Your task to perform on an android device: find snoozed emails in the gmail app Image 0: 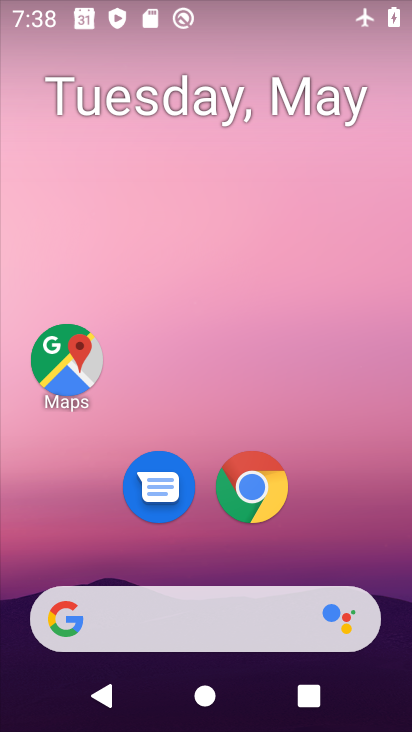
Step 0: drag from (385, 572) to (378, 184)
Your task to perform on an android device: find snoozed emails in the gmail app Image 1: 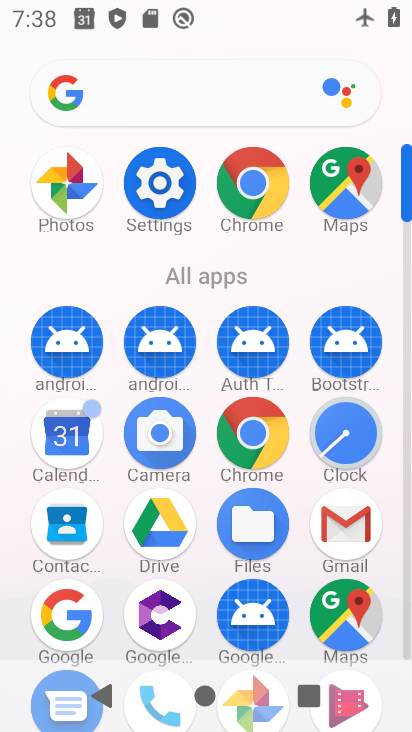
Step 1: click (349, 527)
Your task to perform on an android device: find snoozed emails in the gmail app Image 2: 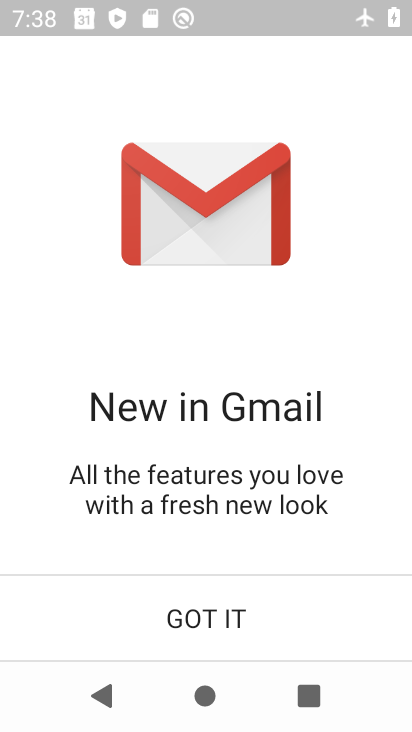
Step 2: click (264, 603)
Your task to perform on an android device: find snoozed emails in the gmail app Image 3: 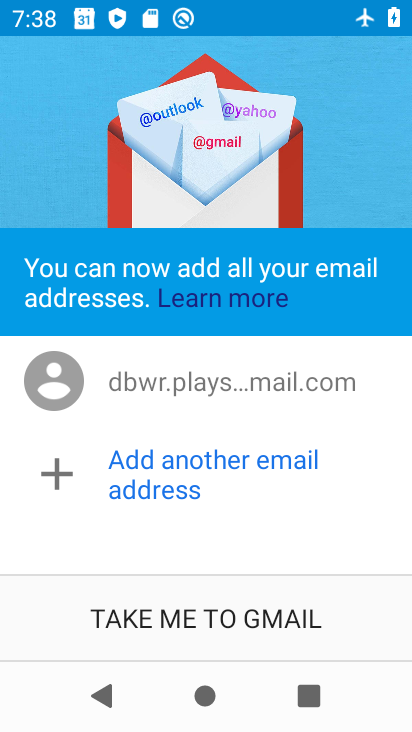
Step 3: click (251, 615)
Your task to perform on an android device: find snoozed emails in the gmail app Image 4: 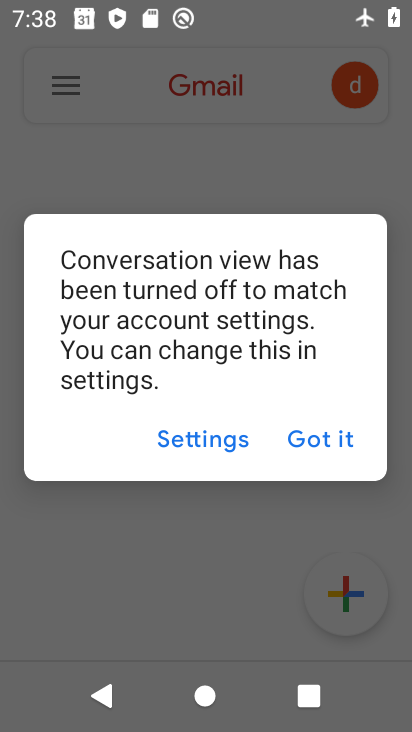
Step 4: click (325, 453)
Your task to perform on an android device: find snoozed emails in the gmail app Image 5: 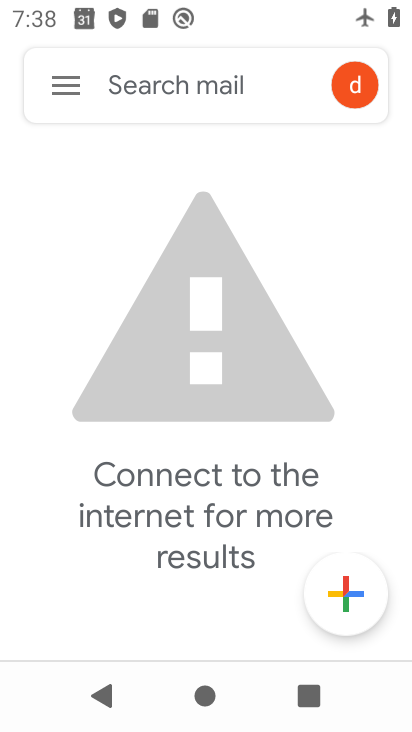
Step 5: click (66, 82)
Your task to perform on an android device: find snoozed emails in the gmail app Image 6: 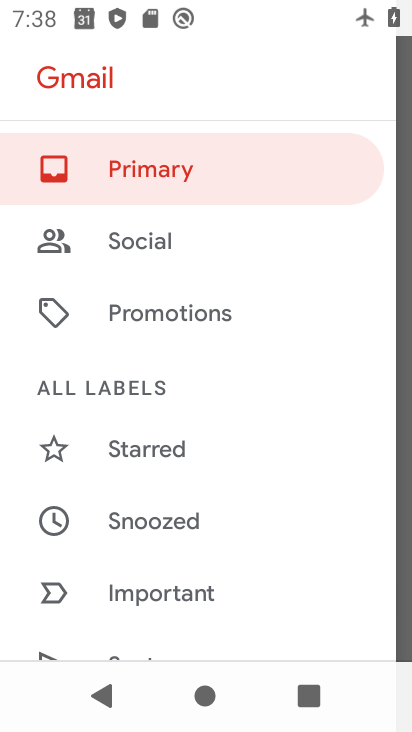
Step 6: click (192, 526)
Your task to perform on an android device: find snoozed emails in the gmail app Image 7: 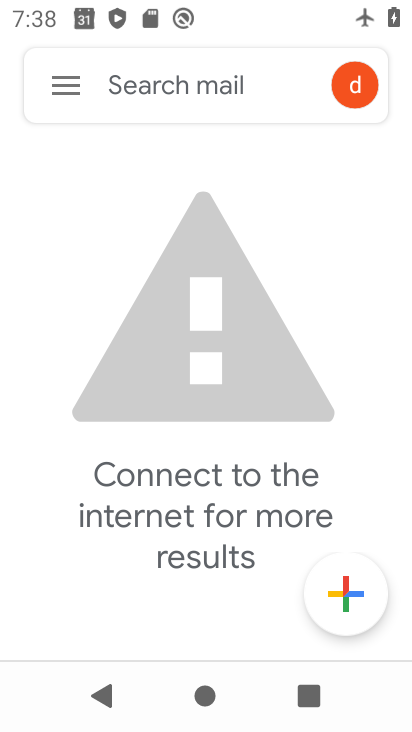
Step 7: task complete